Your task to perform on an android device: turn pop-ups on in chrome Image 0: 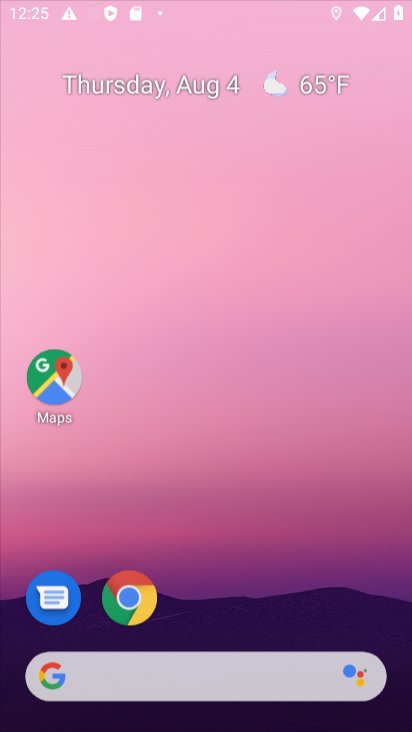
Step 0: click (152, 602)
Your task to perform on an android device: turn pop-ups on in chrome Image 1: 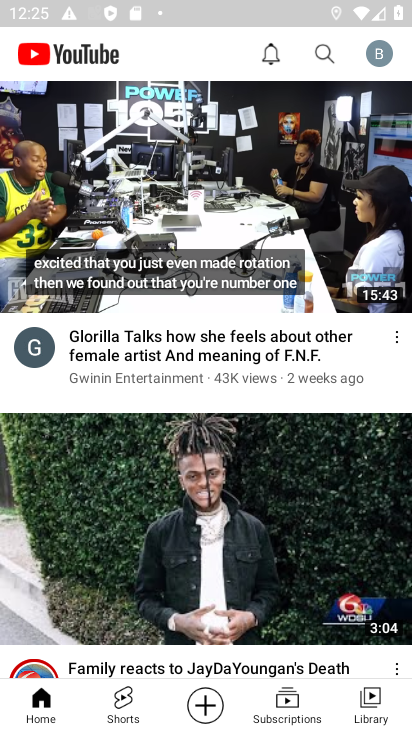
Step 1: press back button
Your task to perform on an android device: turn pop-ups on in chrome Image 2: 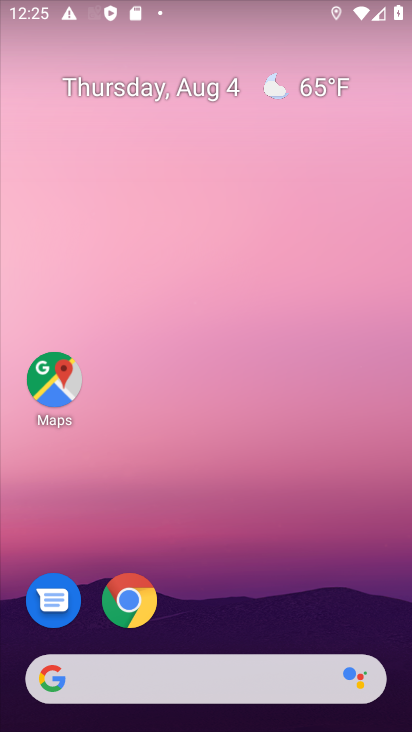
Step 2: click (117, 594)
Your task to perform on an android device: turn pop-ups on in chrome Image 3: 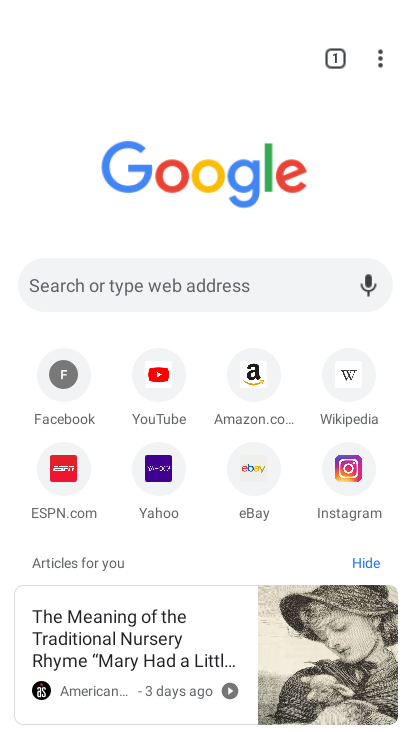
Step 3: click (378, 60)
Your task to perform on an android device: turn pop-ups on in chrome Image 4: 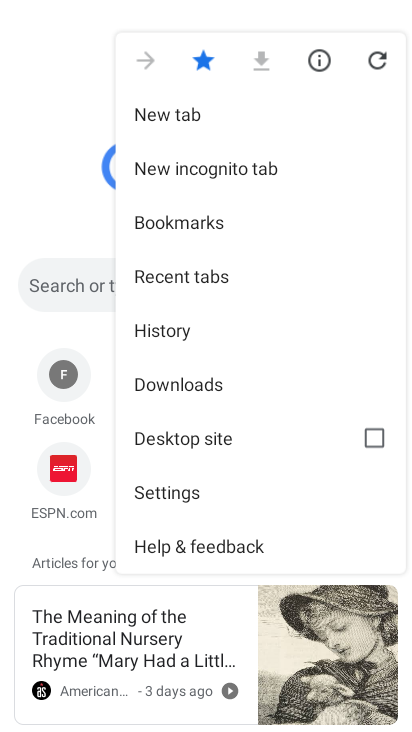
Step 4: click (210, 486)
Your task to perform on an android device: turn pop-ups on in chrome Image 5: 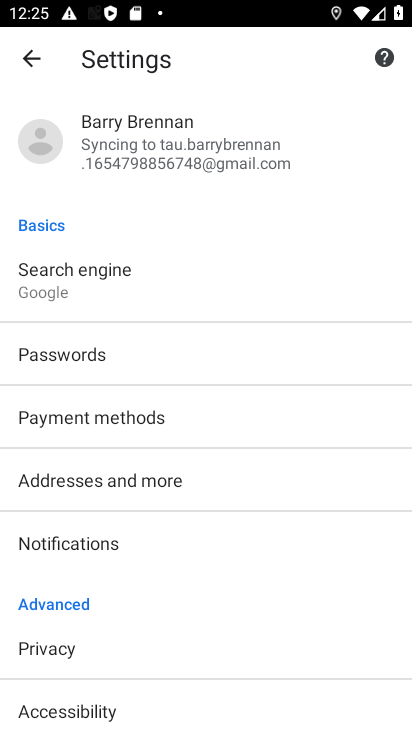
Step 5: drag from (210, 486) to (181, 61)
Your task to perform on an android device: turn pop-ups on in chrome Image 6: 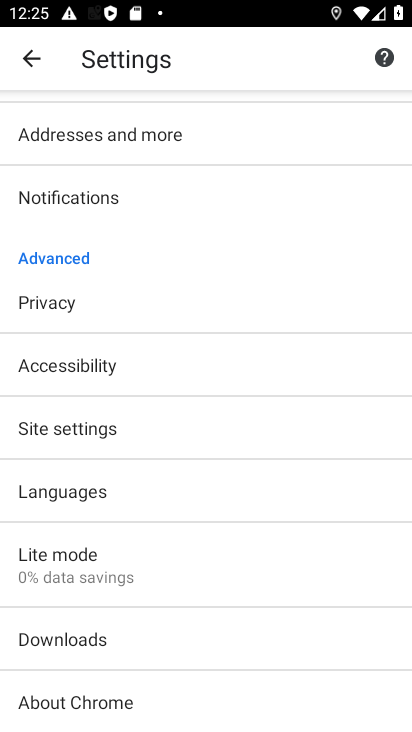
Step 6: click (84, 545)
Your task to perform on an android device: turn pop-ups on in chrome Image 7: 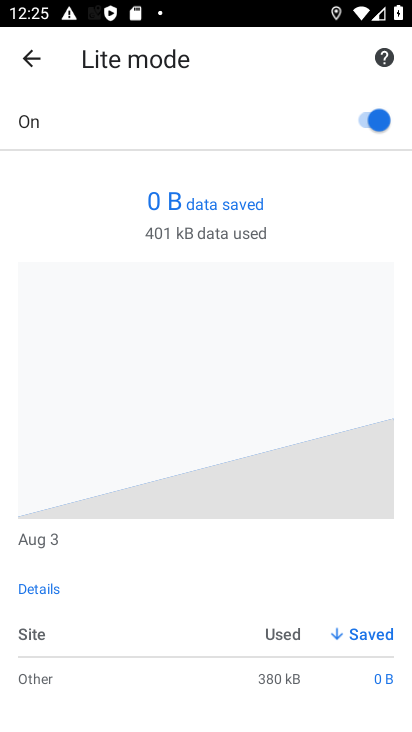
Step 7: click (34, 60)
Your task to perform on an android device: turn pop-ups on in chrome Image 8: 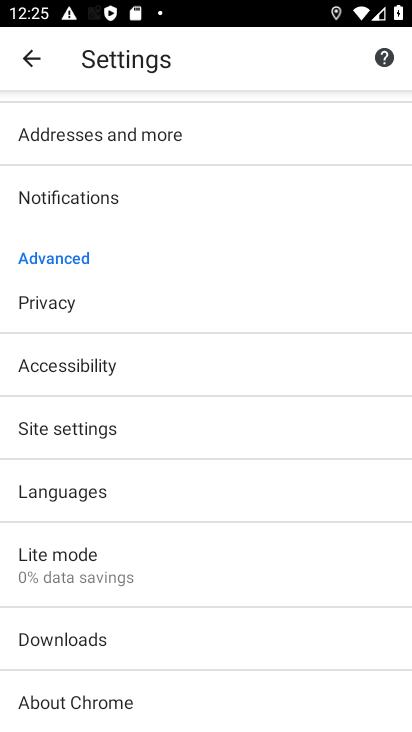
Step 8: click (152, 444)
Your task to perform on an android device: turn pop-ups on in chrome Image 9: 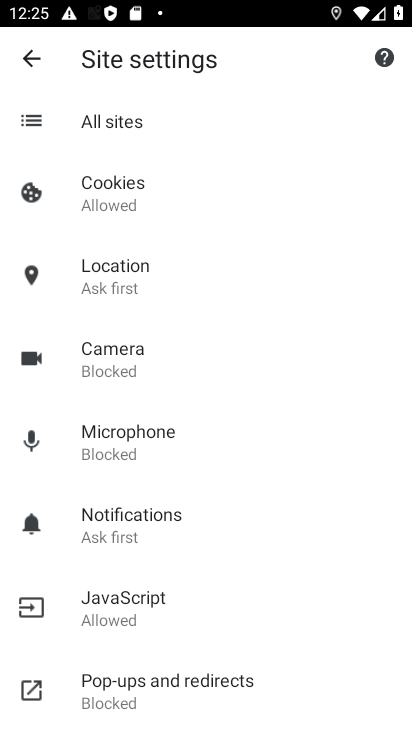
Step 9: click (138, 710)
Your task to perform on an android device: turn pop-ups on in chrome Image 10: 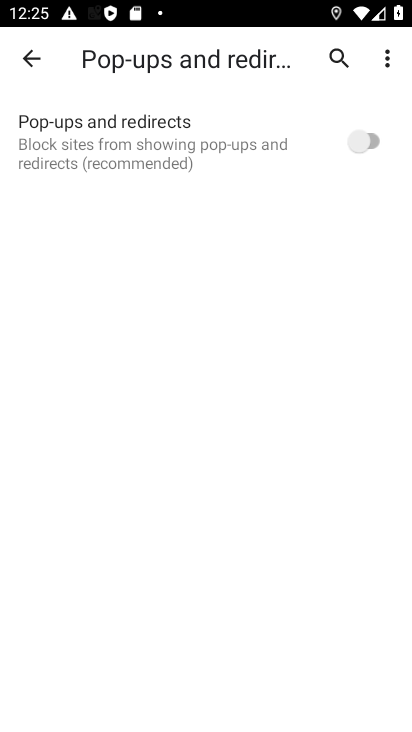
Step 10: click (358, 133)
Your task to perform on an android device: turn pop-ups on in chrome Image 11: 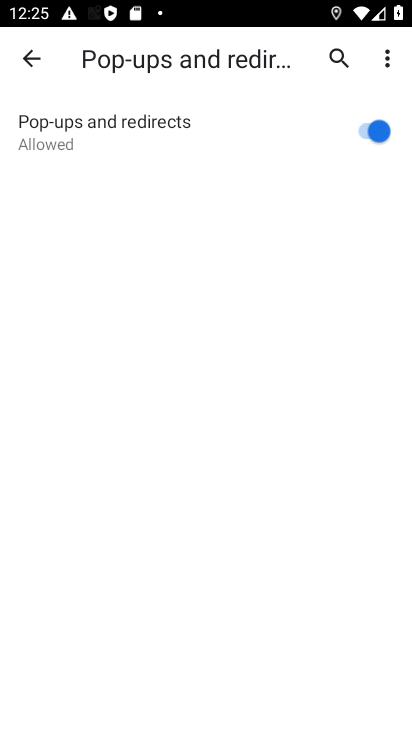
Step 11: task complete